Your task to perform on an android device: change notifications settings Image 0: 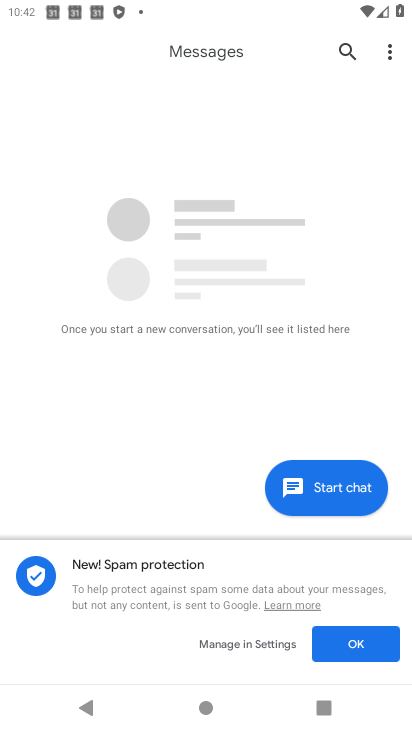
Step 0: press home button
Your task to perform on an android device: change notifications settings Image 1: 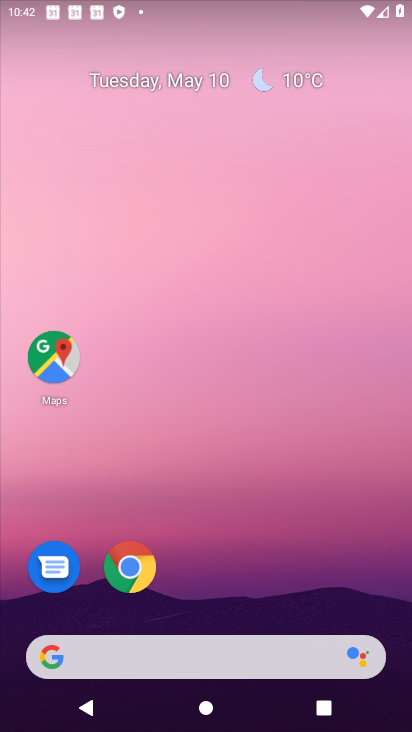
Step 1: drag from (303, 683) to (295, 50)
Your task to perform on an android device: change notifications settings Image 2: 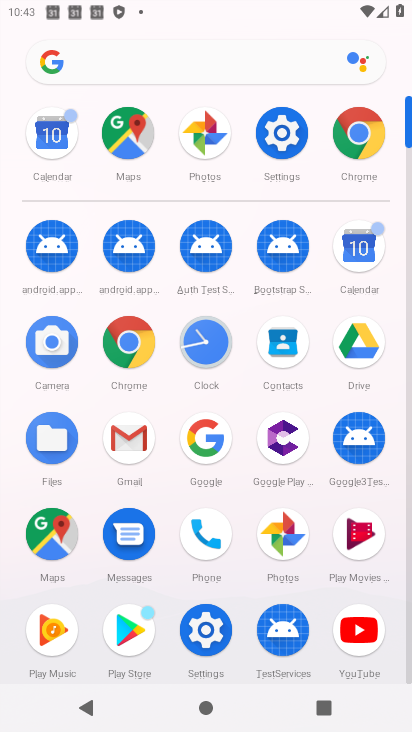
Step 2: click (271, 126)
Your task to perform on an android device: change notifications settings Image 3: 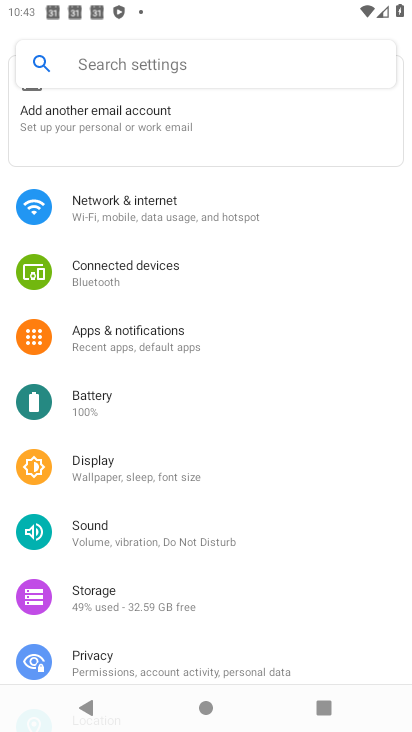
Step 3: click (219, 340)
Your task to perform on an android device: change notifications settings Image 4: 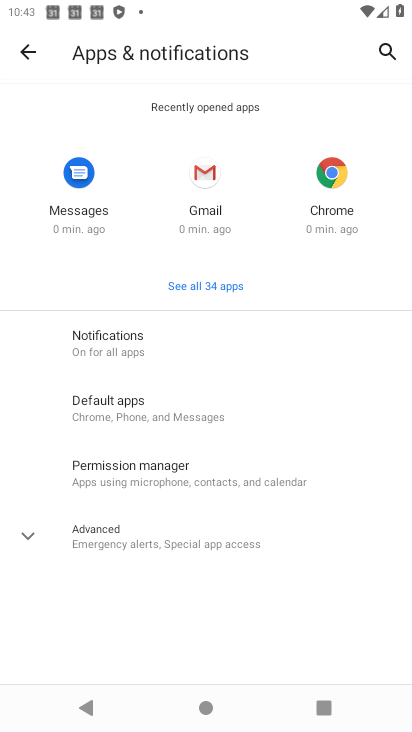
Step 4: click (212, 356)
Your task to perform on an android device: change notifications settings Image 5: 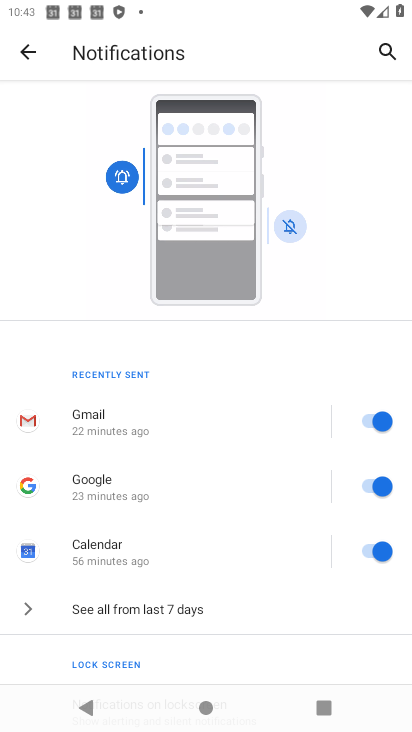
Step 5: click (367, 415)
Your task to perform on an android device: change notifications settings Image 6: 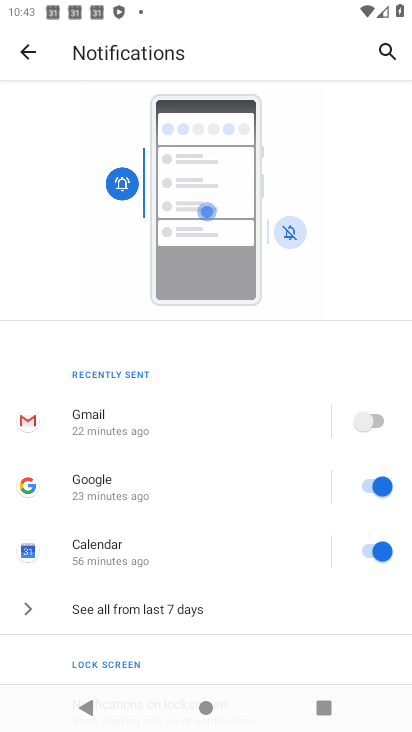
Step 6: click (375, 485)
Your task to perform on an android device: change notifications settings Image 7: 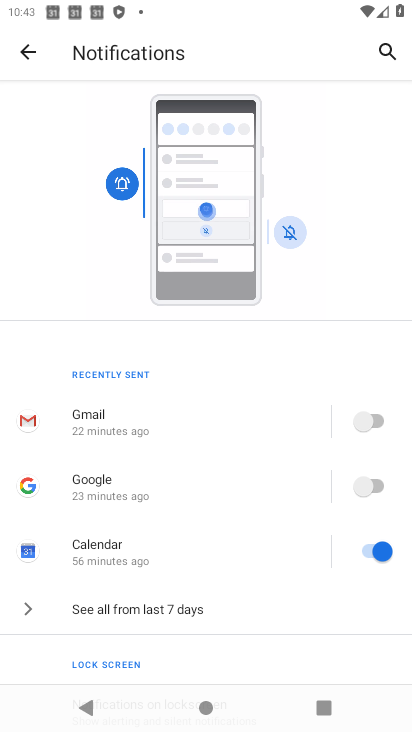
Step 7: click (379, 555)
Your task to perform on an android device: change notifications settings Image 8: 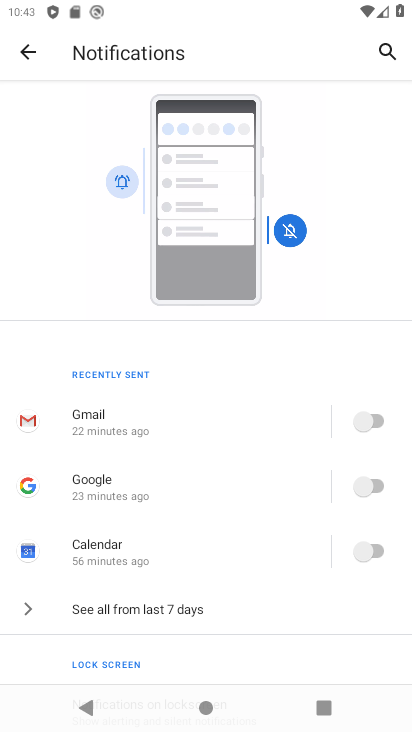
Step 8: task complete